Your task to perform on an android device: Show me popular videos on Youtube Image 0: 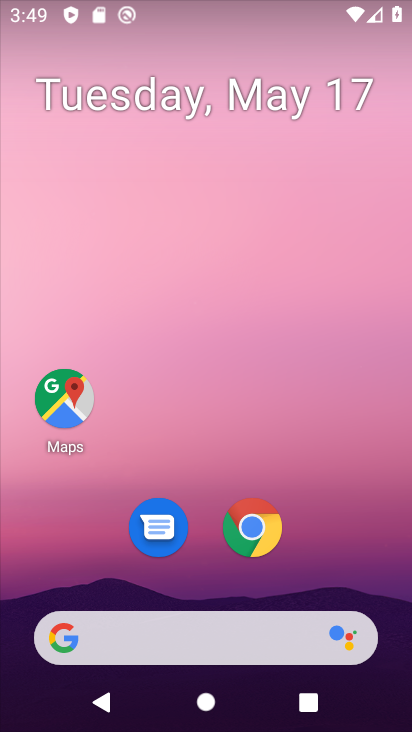
Step 0: drag from (73, 594) to (216, 130)
Your task to perform on an android device: Show me popular videos on Youtube Image 1: 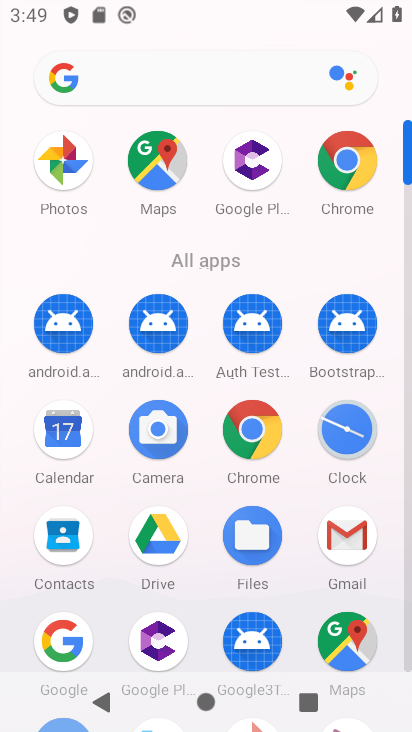
Step 1: drag from (182, 594) to (252, 303)
Your task to perform on an android device: Show me popular videos on Youtube Image 2: 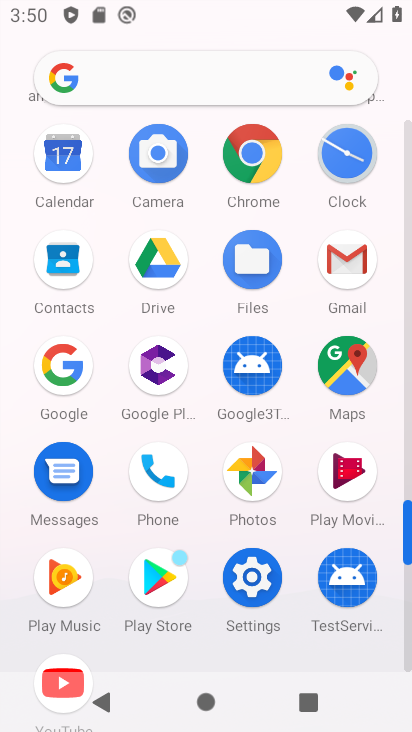
Step 2: click (47, 658)
Your task to perform on an android device: Show me popular videos on Youtube Image 3: 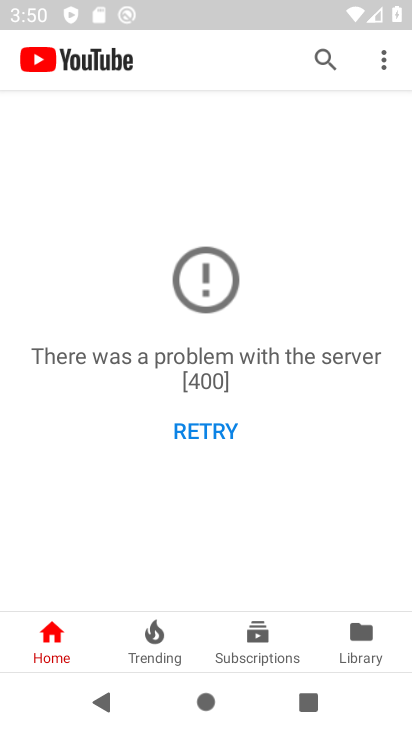
Step 3: task complete